Your task to perform on an android device: toggle pop-ups in chrome Image 0: 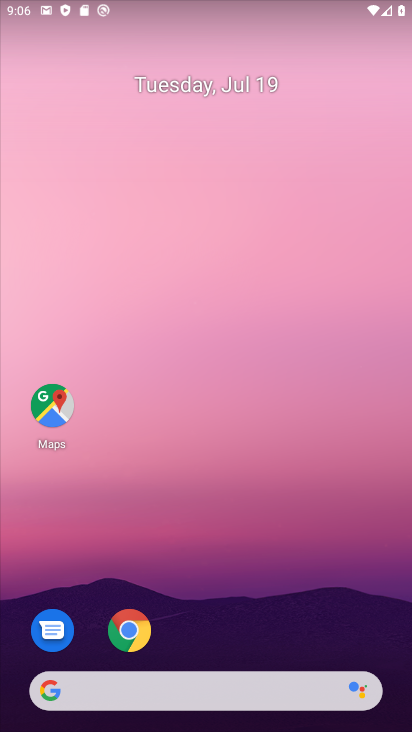
Step 0: click (129, 636)
Your task to perform on an android device: toggle pop-ups in chrome Image 1: 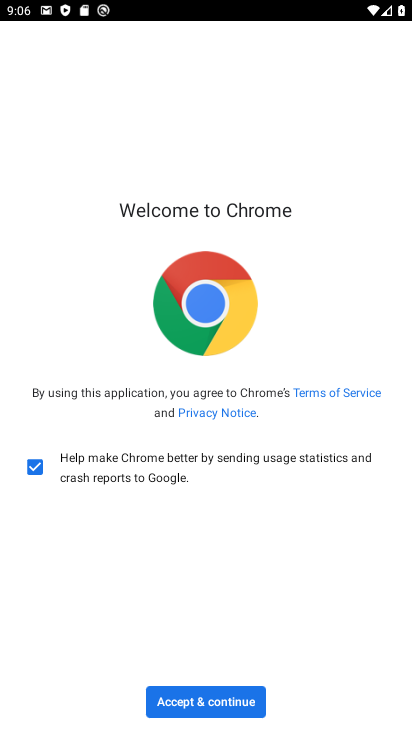
Step 1: click (218, 703)
Your task to perform on an android device: toggle pop-ups in chrome Image 2: 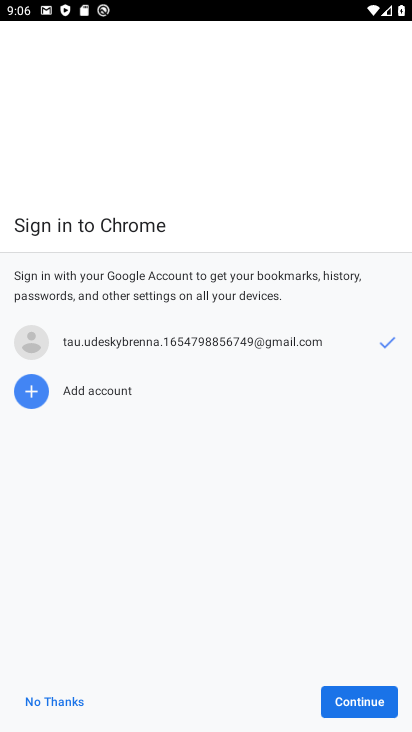
Step 2: click (374, 701)
Your task to perform on an android device: toggle pop-ups in chrome Image 3: 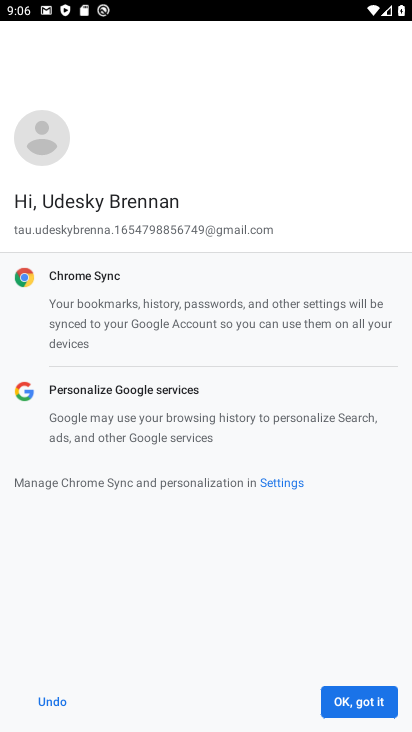
Step 3: click (377, 695)
Your task to perform on an android device: toggle pop-ups in chrome Image 4: 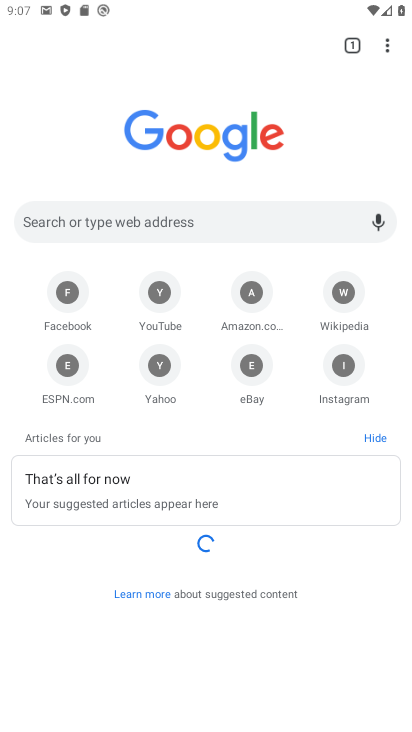
Step 4: click (389, 53)
Your task to perform on an android device: toggle pop-ups in chrome Image 5: 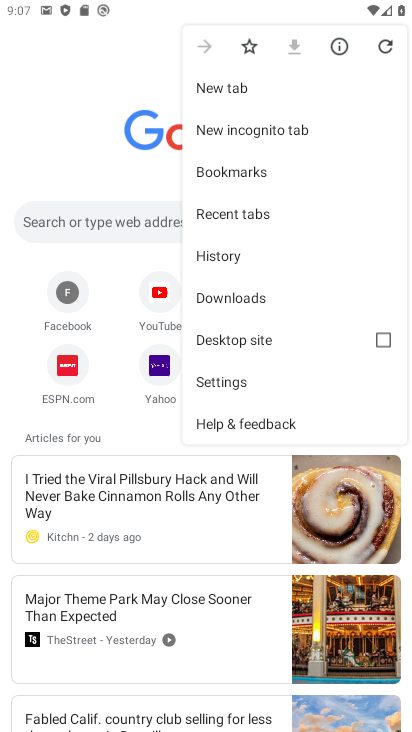
Step 5: click (232, 383)
Your task to perform on an android device: toggle pop-ups in chrome Image 6: 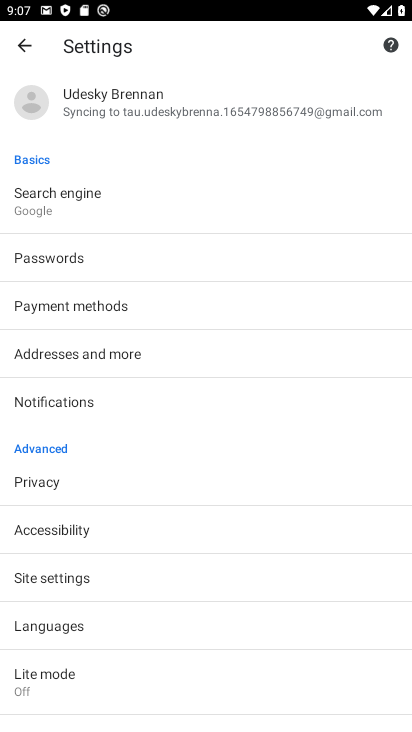
Step 6: click (36, 579)
Your task to perform on an android device: toggle pop-ups in chrome Image 7: 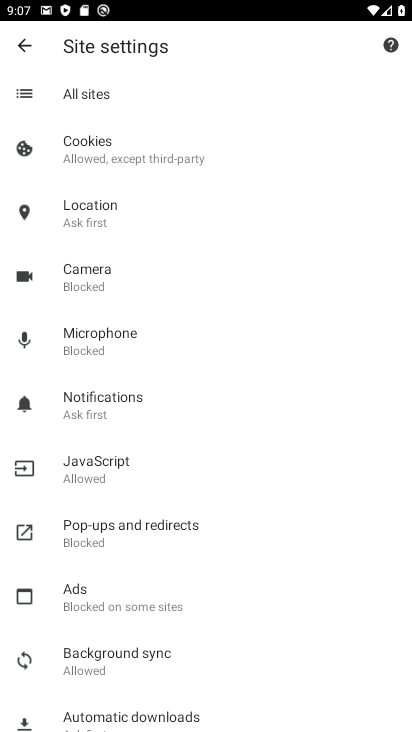
Step 7: drag from (286, 618) to (289, 362)
Your task to perform on an android device: toggle pop-ups in chrome Image 8: 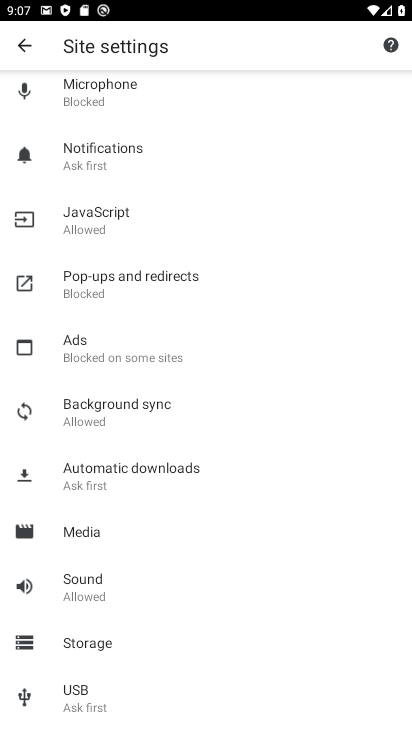
Step 8: drag from (293, 165) to (284, 499)
Your task to perform on an android device: toggle pop-ups in chrome Image 9: 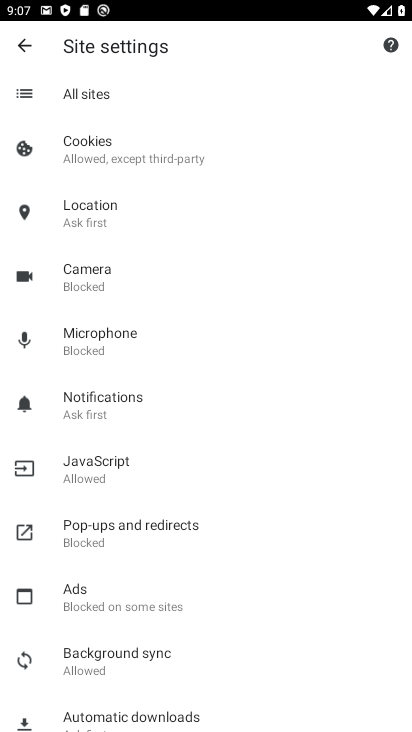
Step 9: click (105, 534)
Your task to perform on an android device: toggle pop-ups in chrome Image 10: 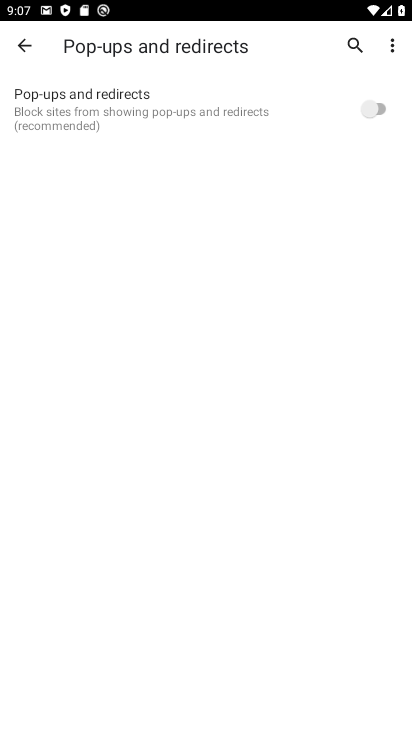
Step 10: click (369, 119)
Your task to perform on an android device: toggle pop-ups in chrome Image 11: 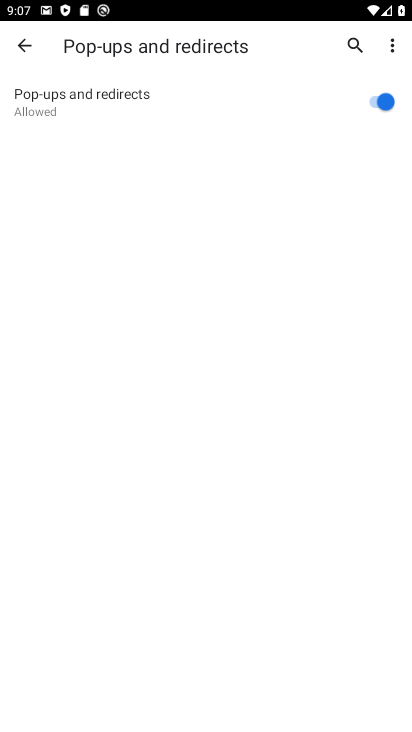
Step 11: task complete